Your task to perform on an android device: delete the emails in spam in the gmail app Image 0: 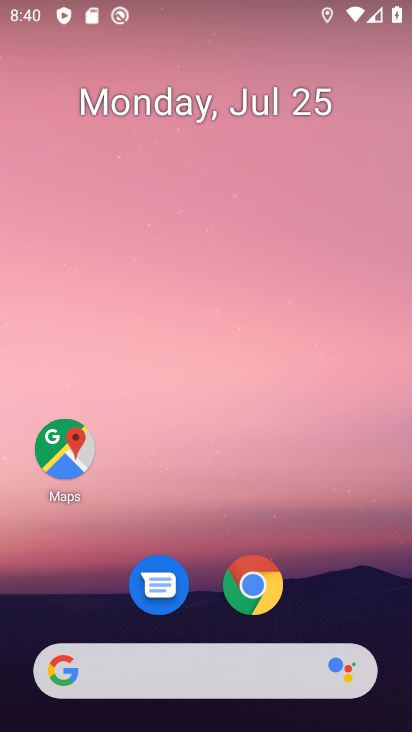
Step 0: press home button
Your task to perform on an android device: delete the emails in spam in the gmail app Image 1: 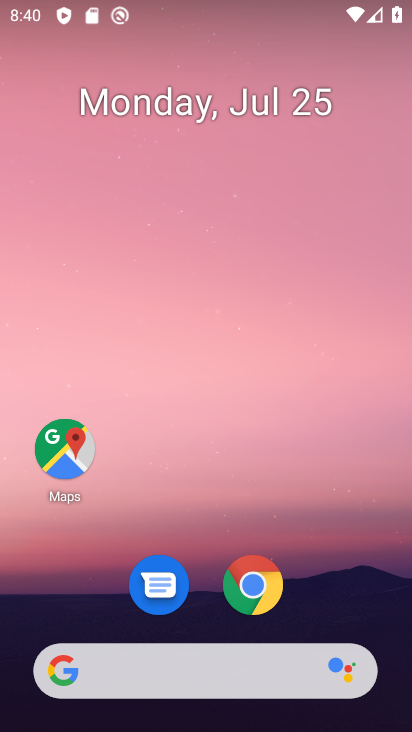
Step 1: drag from (206, 683) to (343, 199)
Your task to perform on an android device: delete the emails in spam in the gmail app Image 2: 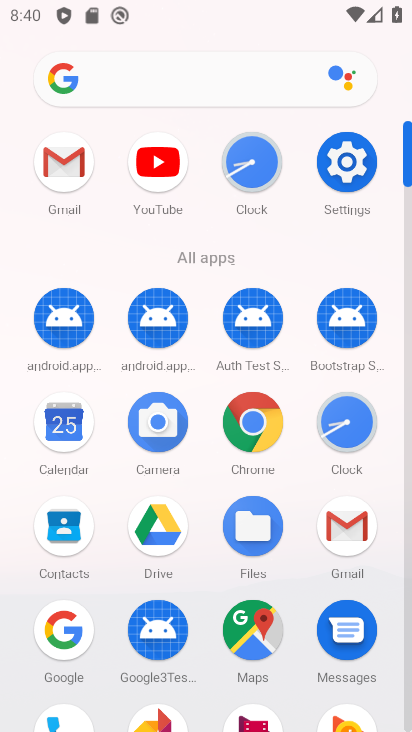
Step 2: click (70, 161)
Your task to perform on an android device: delete the emails in spam in the gmail app Image 3: 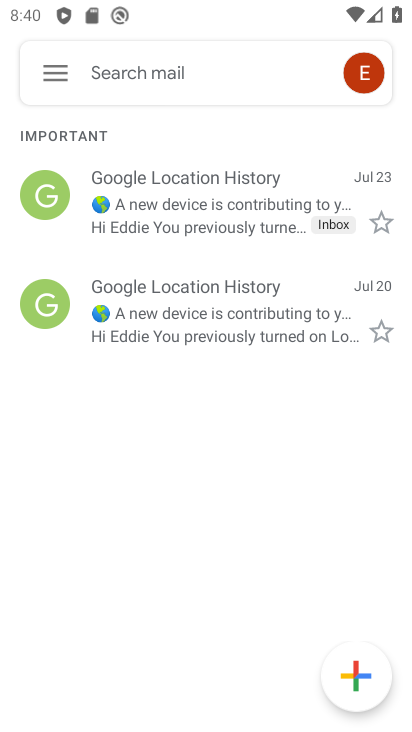
Step 3: click (50, 74)
Your task to perform on an android device: delete the emails in spam in the gmail app Image 4: 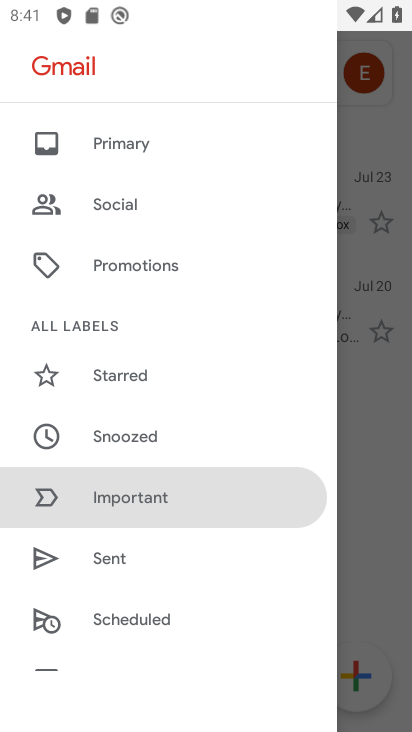
Step 4: drag from (243, 310) to (245, 194)
Your task to perform on an android device: delete the emails in spam in the gmail app Image 5: 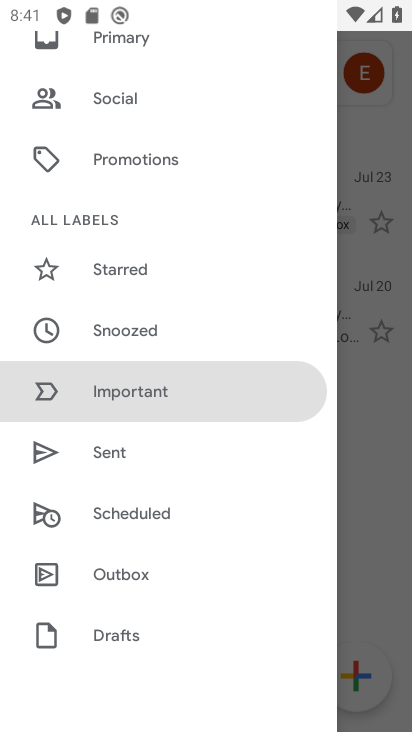
Step 5: drag from (187, 624) to (234, 168)
Your task to perform on an android device: delete the emails in spam in the gmail app Image 6: 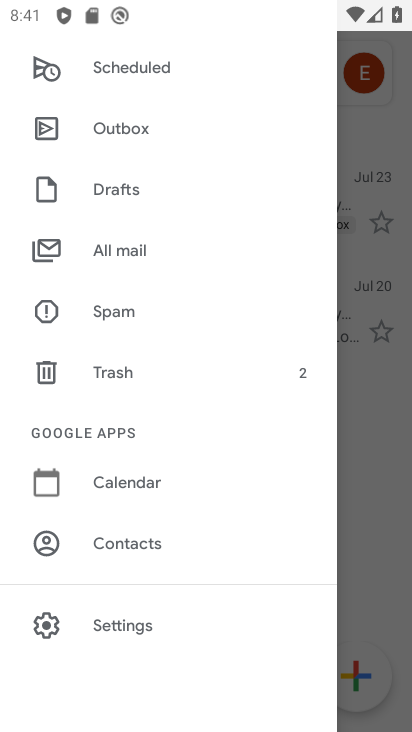
Step 6: click (137, 308)
Your task to perform on an android device: delete the emails in spam in the gmail app Image 7: 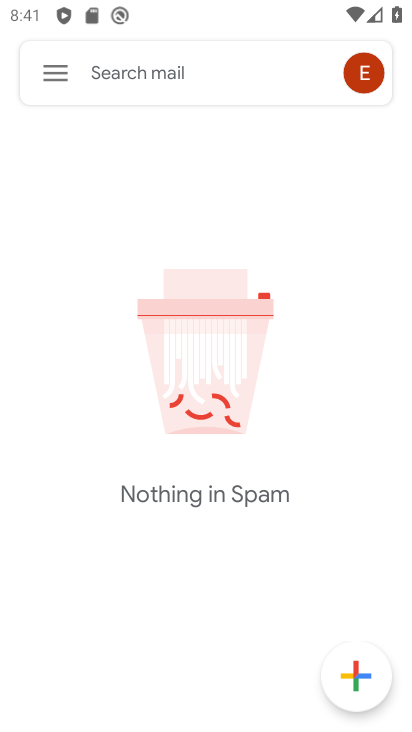
Step 7: task complete